Your task to perform on an android device: turn pop-ups off in chrome Image 0: 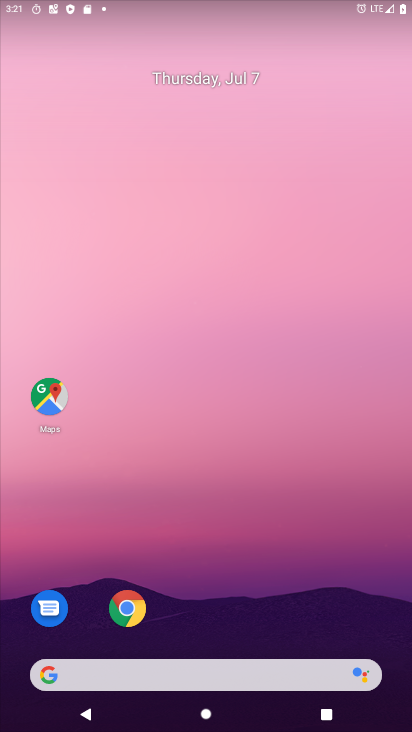
Step 0: click (127, 608)
Your task to perform on an android device: turn pop-ups off in chrome Image 1: 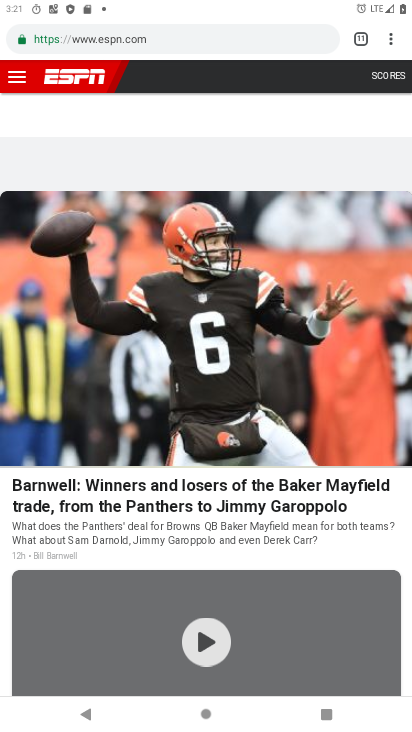
Step 1: click (390, 42)
Your task to perform on an android device: turn pop-ups off in chrome Image 2: 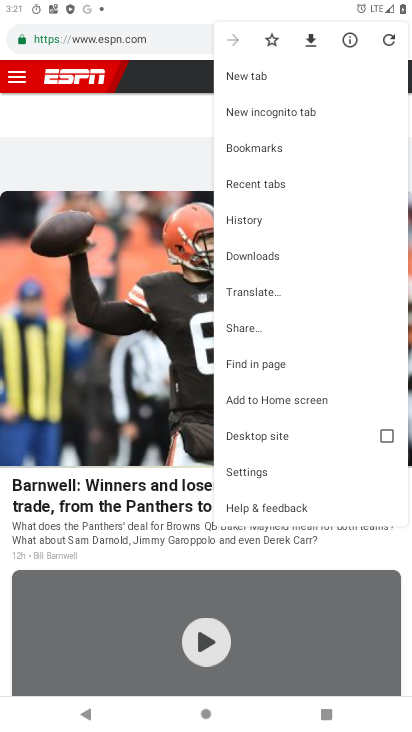
Step 2: click (254, 471)
Your task to perform on an android device: turn pop-ups off in chrome Image 3: 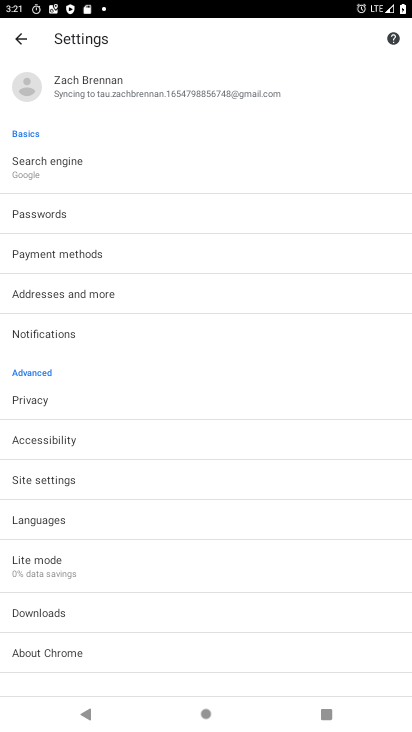
Step 3: click (37, 480)
Your task to perform on an android device: turn pop-ups off in chrome Image 4: 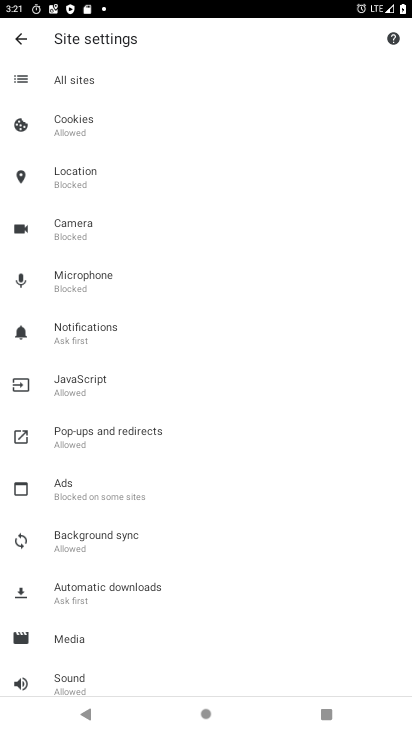
Step 4: click (86, 432)
Your task to perform on an android device: turn pop-ups off in chrome Image 5: 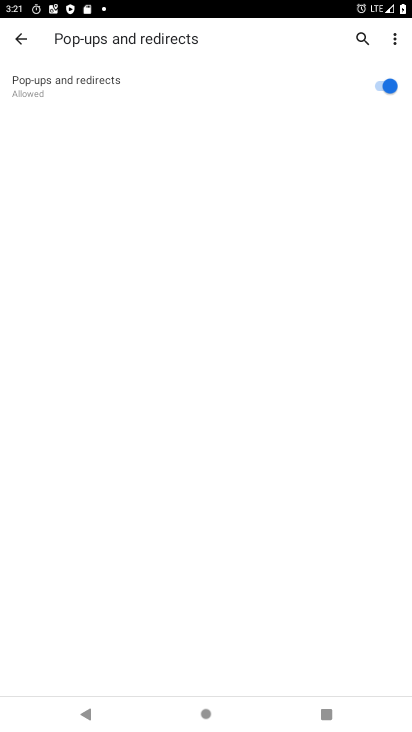
Step 5: click (381, 80)
Your task to perform on an android device: turn pop-ups off in chrome Image 6: 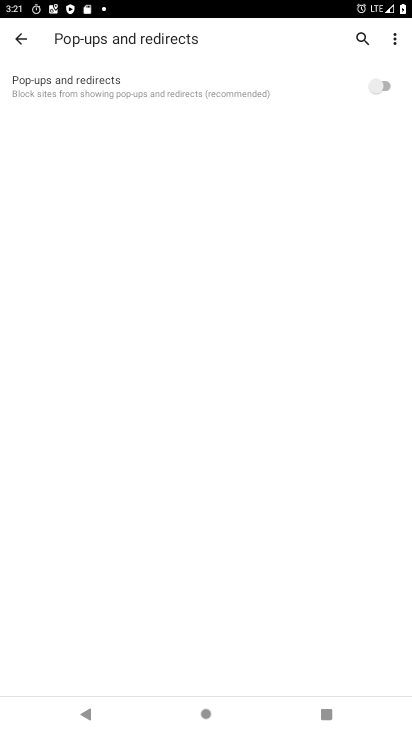
Step 6: task complete